Your task to perform on an android device: change notification settings in the gmail app Image 0: 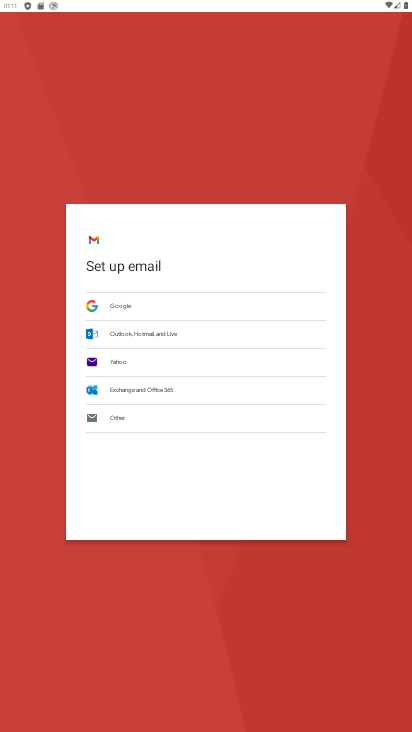
Step 0: press home button
Your task to perform on an android device: change notification settings in the gmail app Image 1: 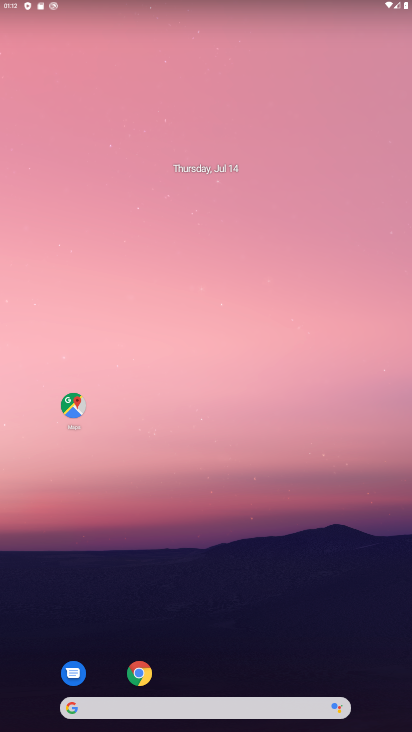
Step 1: drag from (249, 634) to (224, 236)
Your task to perform on an android device: change notification settings in the gmail app Image 2: 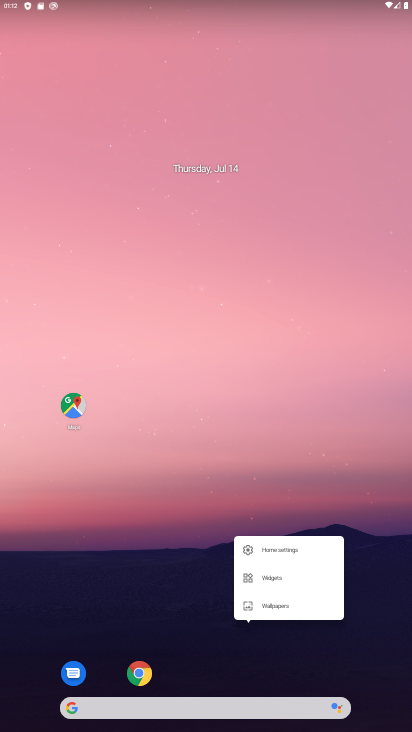
Step 2: click (194, 348)
Your task to perform on an android device: change notification settings in the gmail app Image 3: 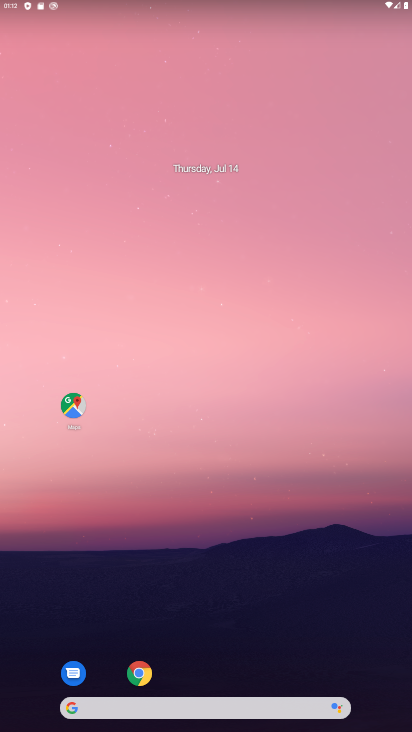
Step 3: drag from (221, 672) to (198, 227)
Your task to perform on an android device: change notification settings in the gmail app Image 4: 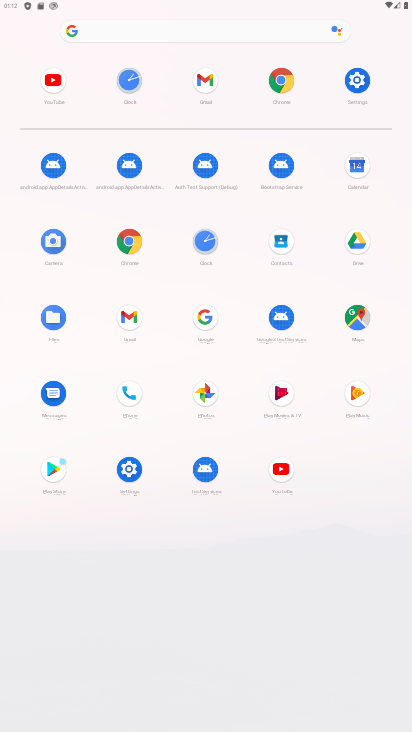
Step 4: click (199, 99)
Your task to perform on an android device: change notification settings in the gmail app Image 5: 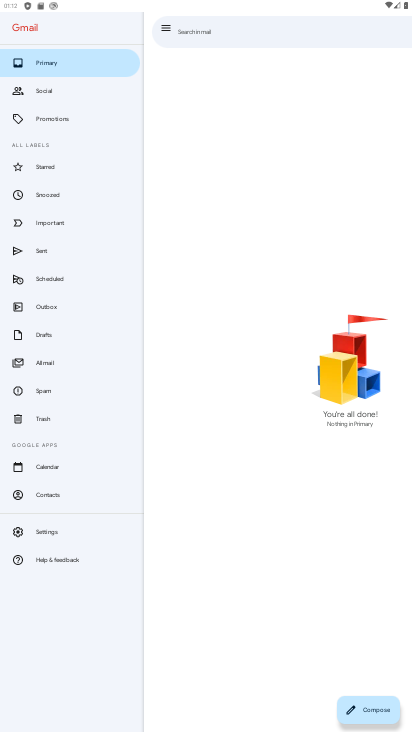
Step 5: click (51, 529)
Your task to perform on an android device: change notification settings in the gmail app Image 6: 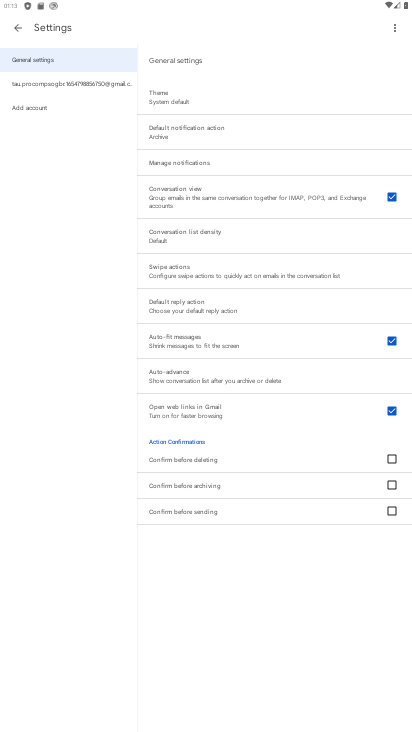
Step 6: click (190, 153)
Your task to perform on an android device: change notification settings in the gmail app Image 7: 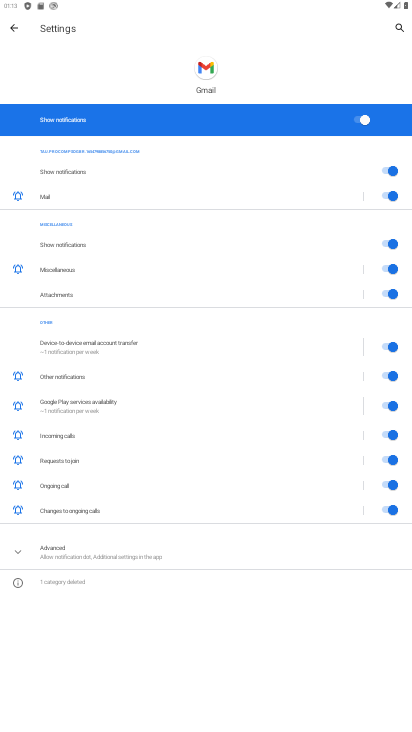
Step 7: task complete